Your task to perform on an android device: Show me popular games on the Play Store Image 0: 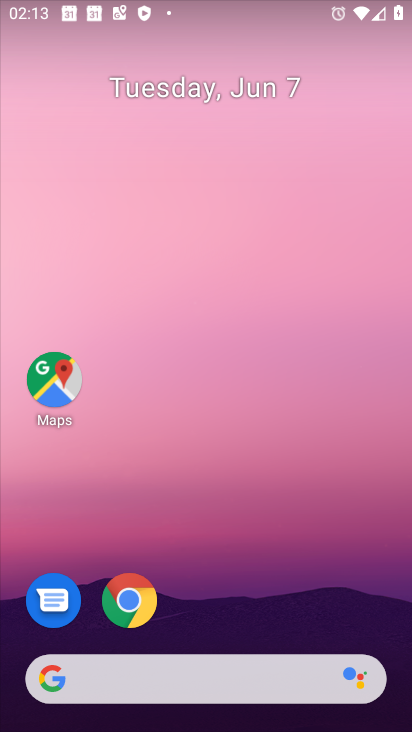
Step 0: drag from (217, 715) to (203, 220)
Your task to perform on an android device: Show me popular games on the Play Store Image 1: 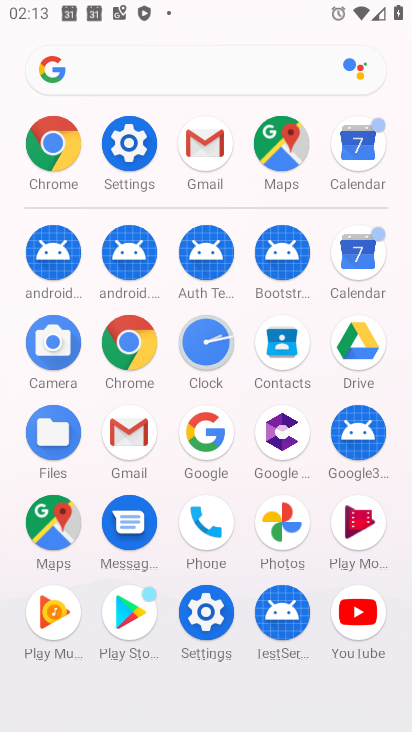
Step 1: click (129, 615)
Your task to perform on an android device: Show me popular games on the Play Store Image 2: 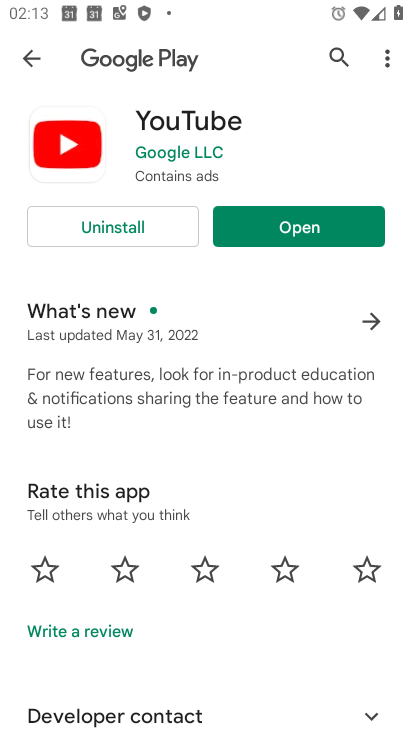
Step 2: click (34, 55)
Your task to perform on an android device: Show me popular games on the Play Store Image 3: 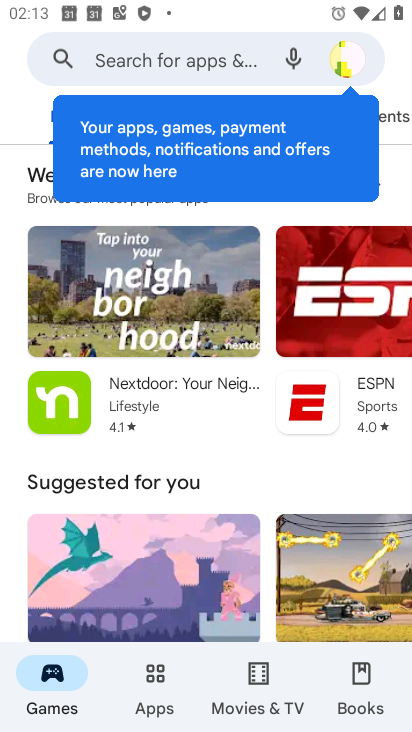
Step 3: drag from (242, 604) to (218, 271)
Your task to perform on an android device: Show me popular games on the Play Store Image 4: 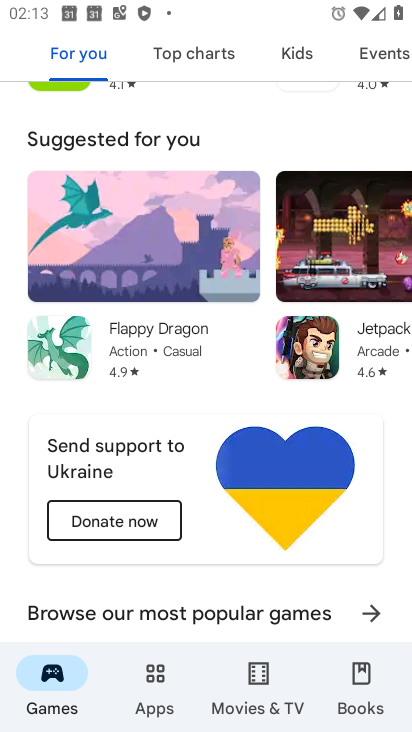
Step 4: drag from (256, 615) to (256, 313)
Your task to perform on an android device: Show me popular games on the Play Store Image 5: 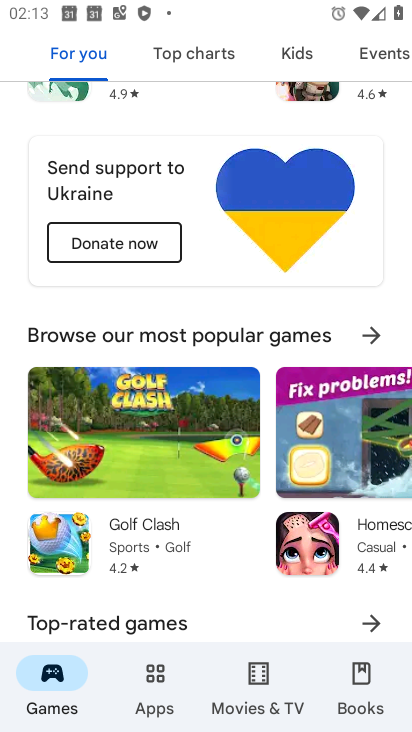
Step 5: click (335, 341)
Your task to perform on an android device: Show me popular games on the Play Store Image 6: 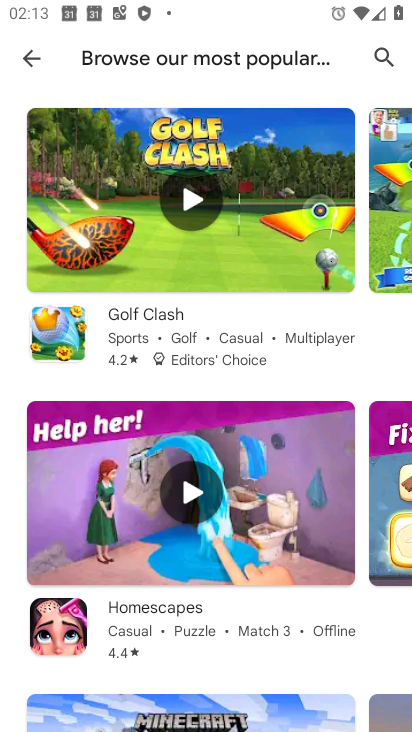
Step 6: task complete